Your task to perform on an android device: turn on bluetooth scan Image 0: 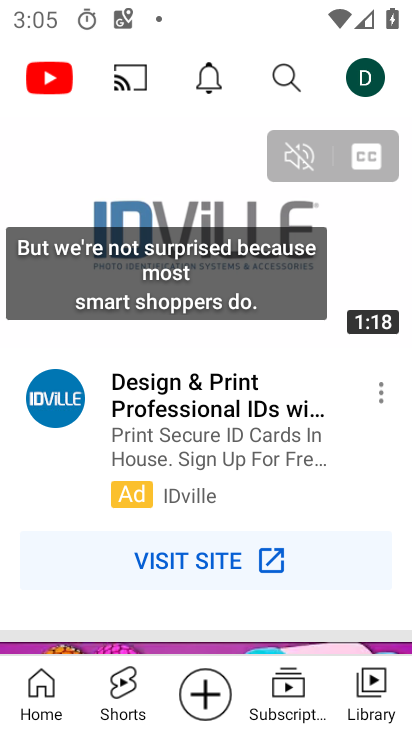
Step 0: press home button
Your task to perform on an android device: turn on bluetooth scan Image 1: 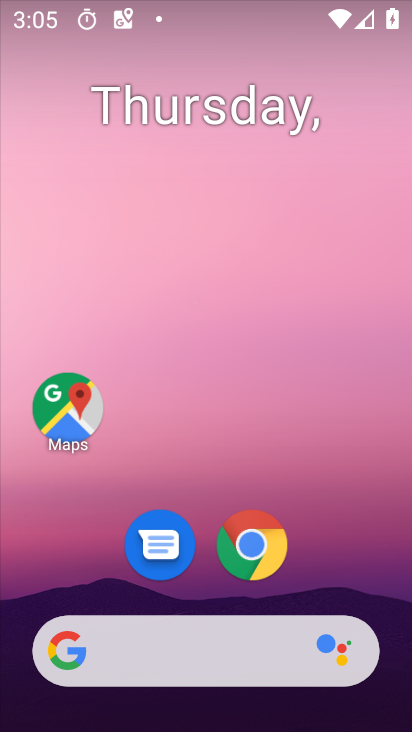
Step 1: drag from (217, 719) to (217, 115)
Your task to perform on an android device: turn on bluetooth scan Image 2: 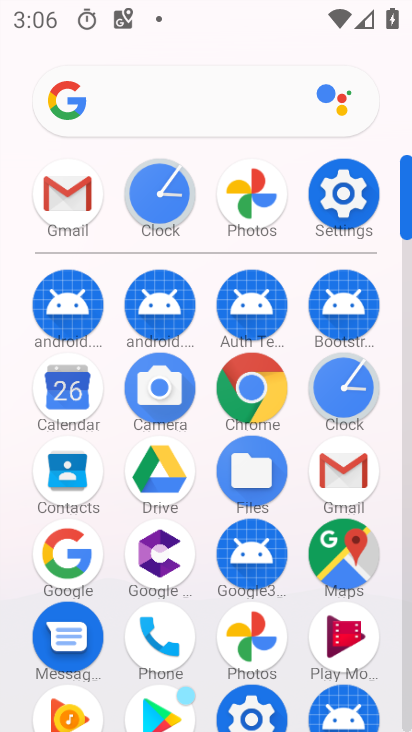
Step 2: click (342, 191)
Your task to perform on an android device: turn on bluetooth scan Image 3: 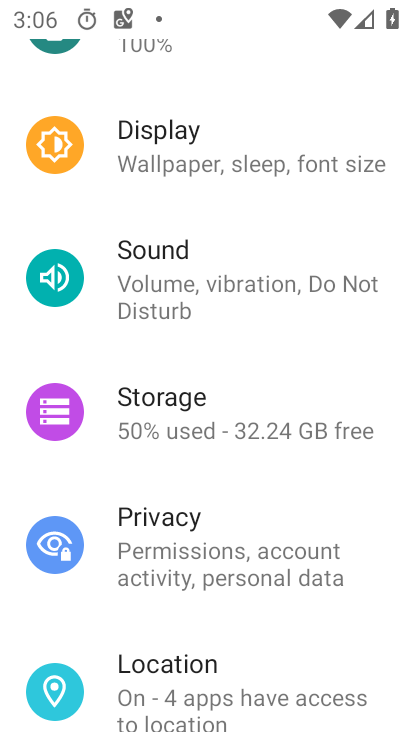
Step 3: click (179, 667)
Your task to perform on an android device: turn on bluetooth scan Image 4: 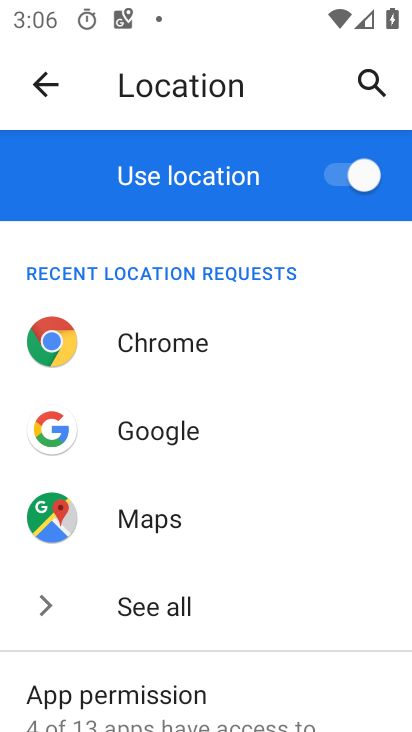
Step 4: drag from (180, 692) to (180, 238)
Your task to perform on an android device: turn on bluetooth scan Image 5: 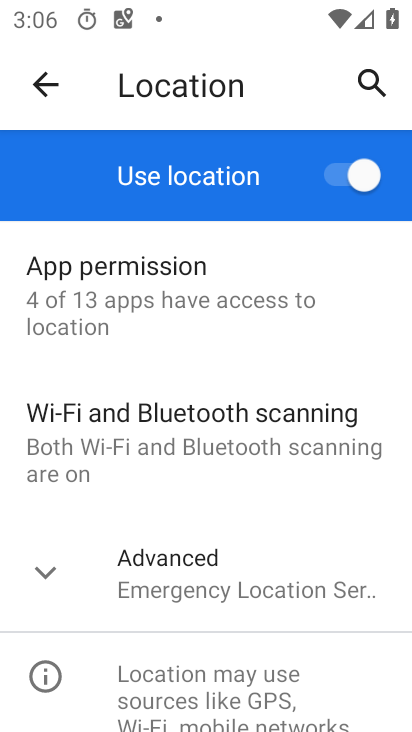
Step 5: click (166, 427)
Your task to perform on an android device: turn on bluetooth scan Image 6: 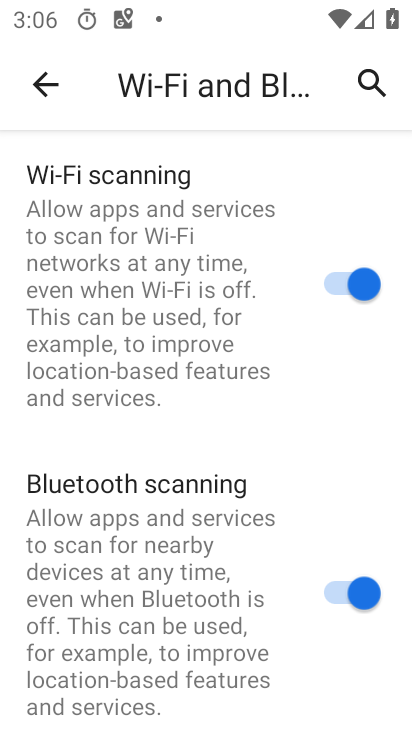
Step 6: task complete